Your task to perform on an android device: toggle priority inbox in the gmail app Image 0: 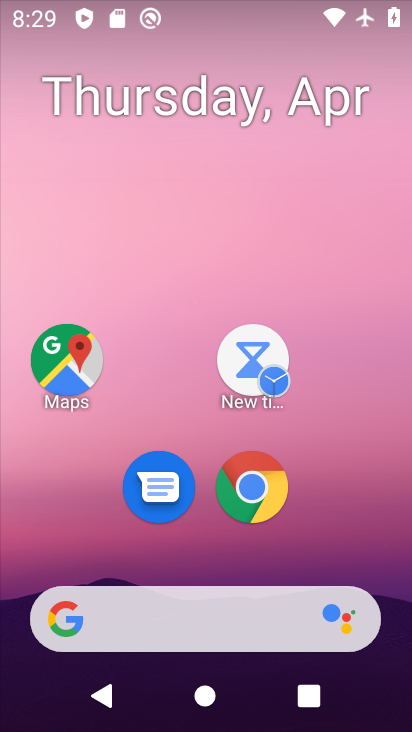
Step 0: drag from (334, 338) to (292, 115)
Your task to perform on an android device: toggle priority inbox in the gmail app Image 1: 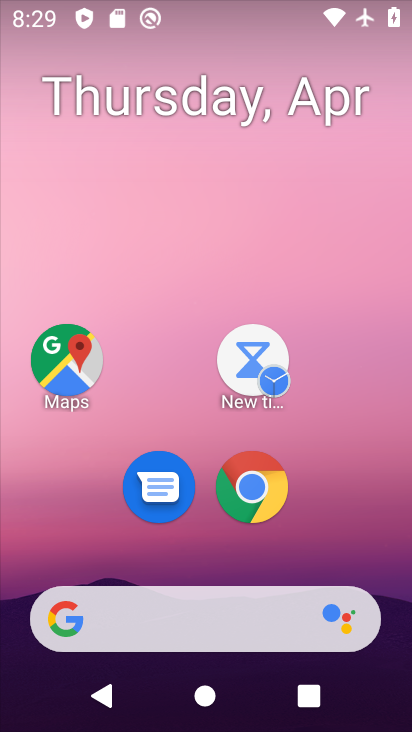
Step 1: drag from (320, 532) to (308, 62)
Your task to perform on an android device: toggle priority inbox in the gmail app Image 2: 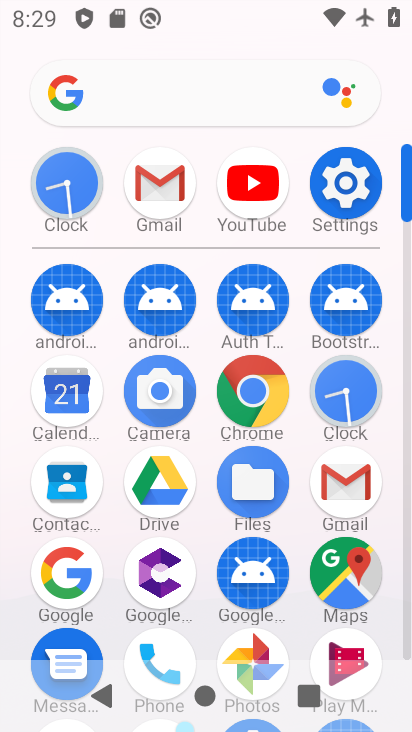
Step 2: click (165, 185)
Your task to perform on an android device: toggle priority inbox in the gmail app Image 3: 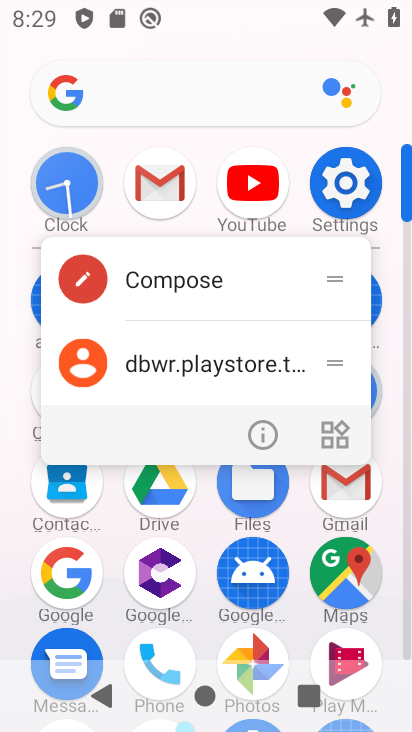
Step 3: click (165, 185)
Your task to perform on an android device: toggle priority inbox in the gmail app Image 4: 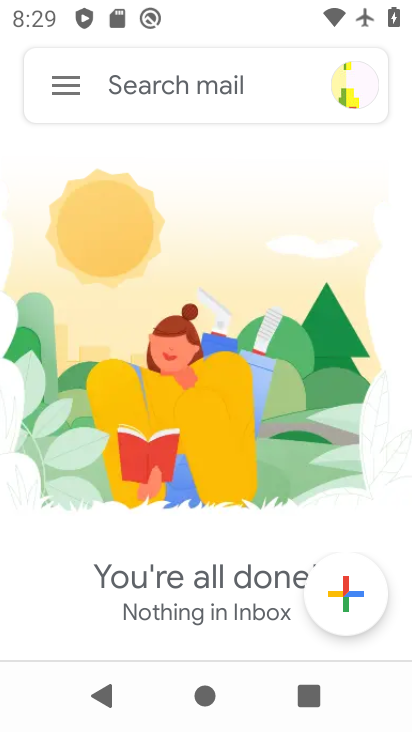
Step 4: click (61, 86)
Your task to perform on an android device: toggle priority inbox in the gmail app Image 5: 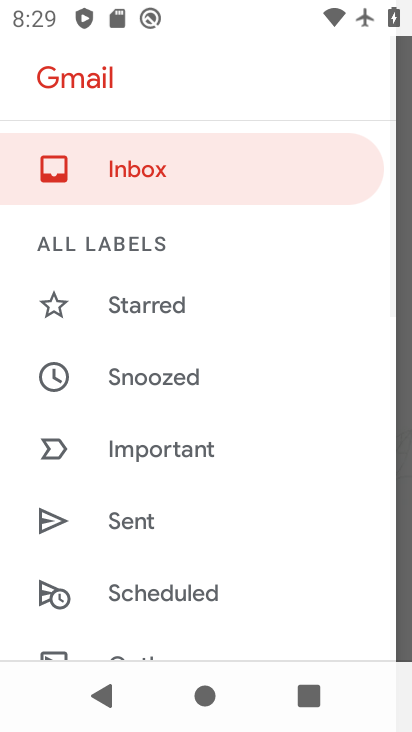
Step 5: drag from (288, 618) to (284, 134)
Your task to perform on an android device: toggle priority inbox in the gmail app Image 6: 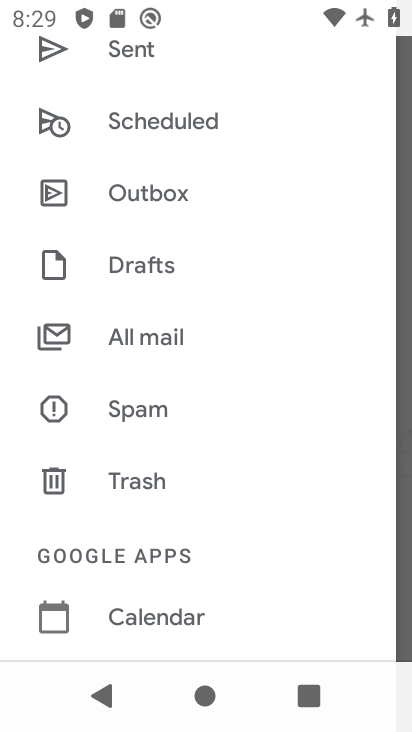
Step 6: drag from (273, 591) to (311, 273)
Your task to perform on an android device: toggle priority inbox in the gmail app Image 7: 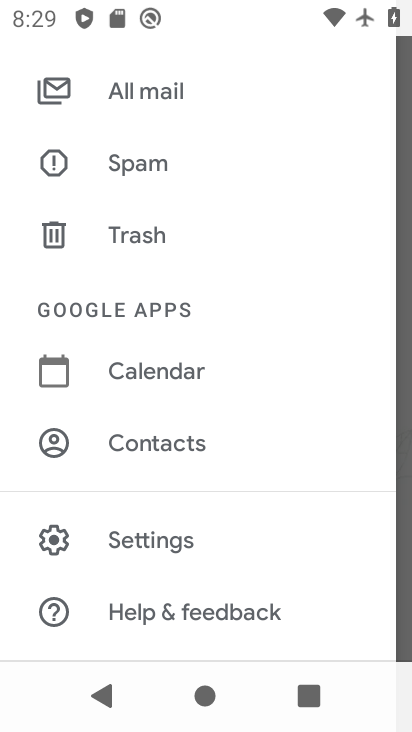
Step 7: click (145, 543)
Your task to perform on an android device: toggle priority inbox in the gmail app Image 8: 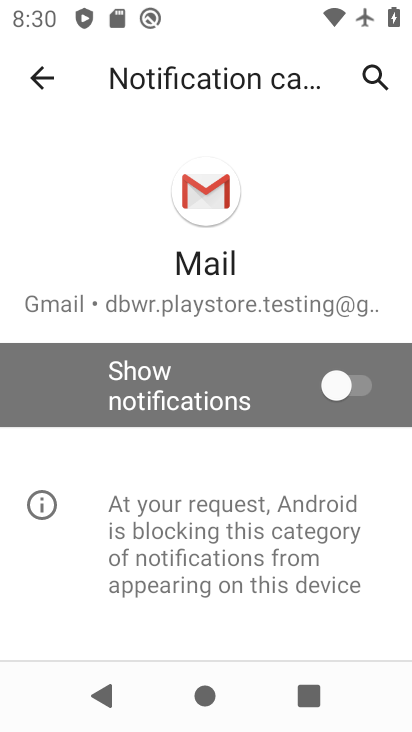
Step 8: press back button
Your task to perform on an android device: toggle priority inbox in the gmail app Image 9: 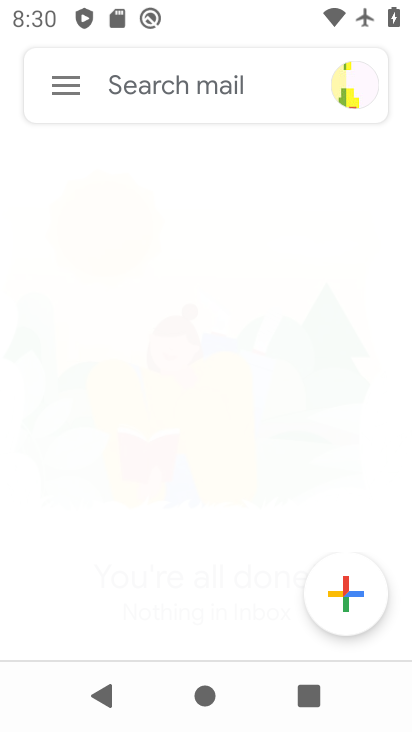
Step 9: click (68, 84)
Your task to perform on an android device: toggle priority inbox in the gmail app Image 10: 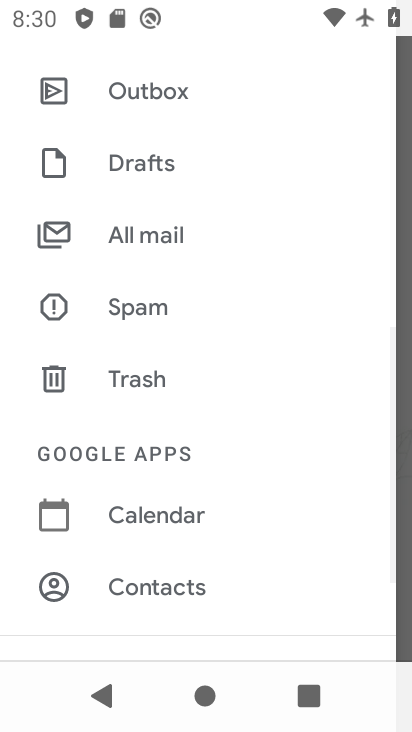
Step 10: drag from (244, 600) to (248, 362)
Your task to perform on an android device: toggle priority inbox in the gmail app Image 11: 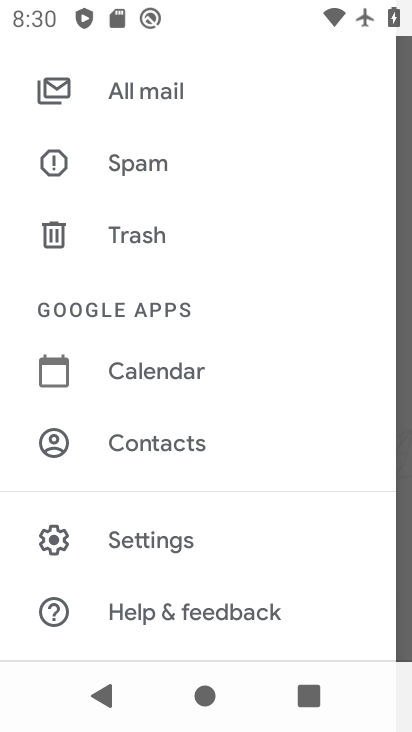
Step 11: click (149, 534)
Your task to perform on an android device: toggle priority inbox in the gmail app Image 12: 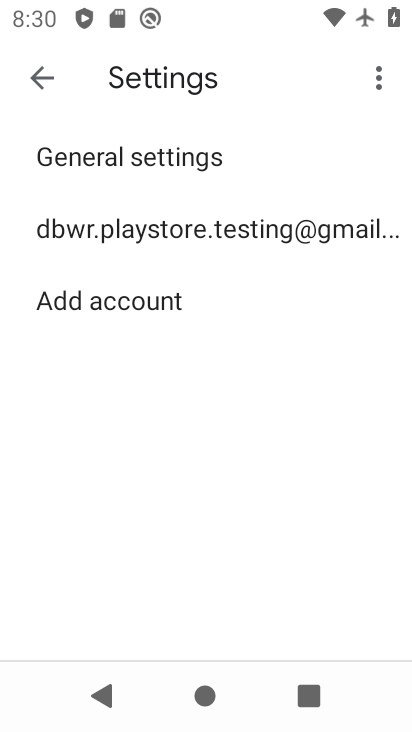
Step 12: click (193, 236)
Your task to perform on an android device: toggle priority inbox in the gmail app Image 13: 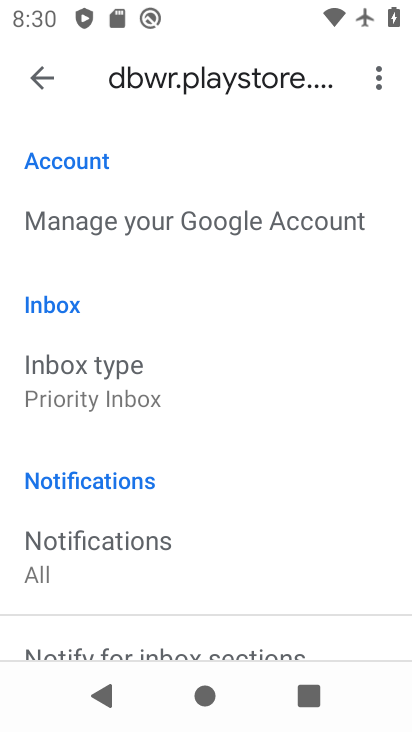
Step 13: click (95, 402)
Your task to perform on an android device: toggle priority inbox in the gmail app Image 14: 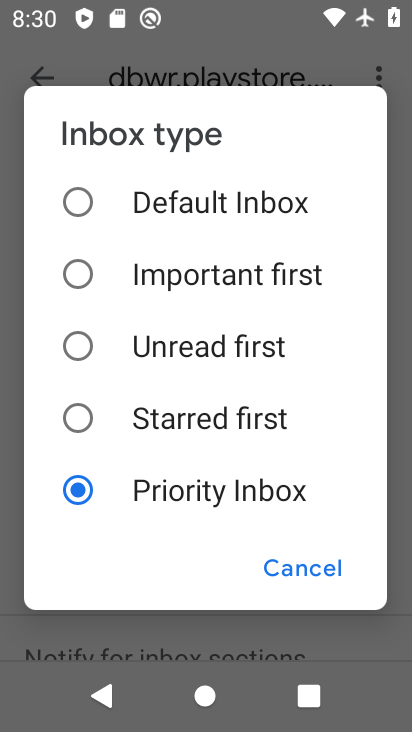
Step 14: click (67, 344)
Your task to perform on an android device: toggle priority inbox in the gmail app Image 15: 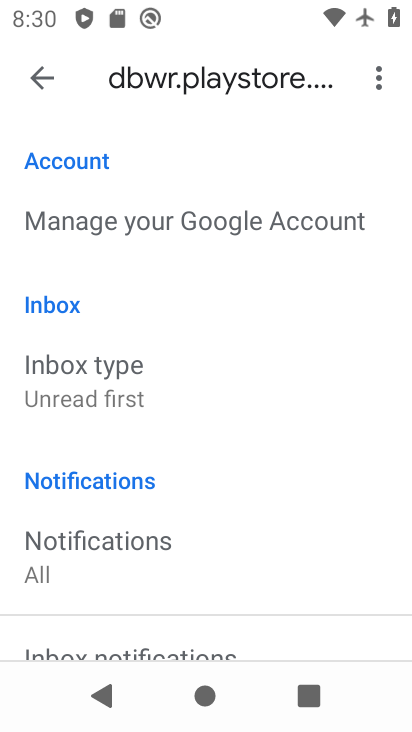
Step 15: task complete